Your task to perform on an android device: When is my next meeting? Image 0: 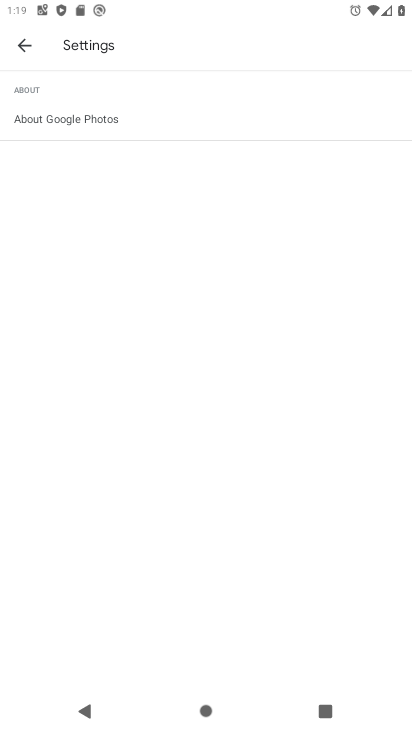
Step 0: press home button
Your task to perform on an android device: When is my next meeting? Image 1: 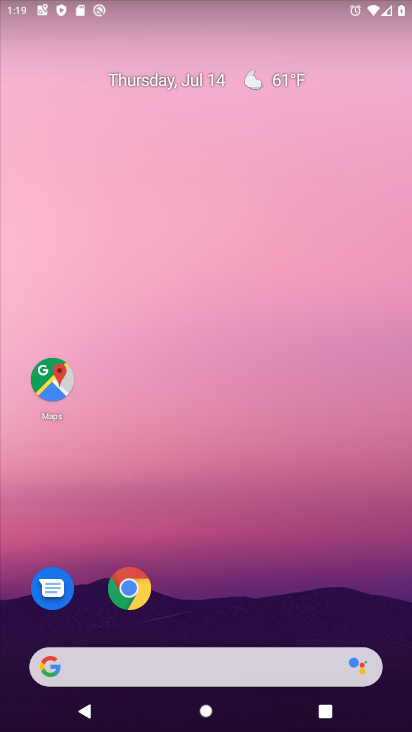
Step 1: drag from (236, 590) to (234, 297)
Your task to perform on an android device: When is my next meeting? Image 2: 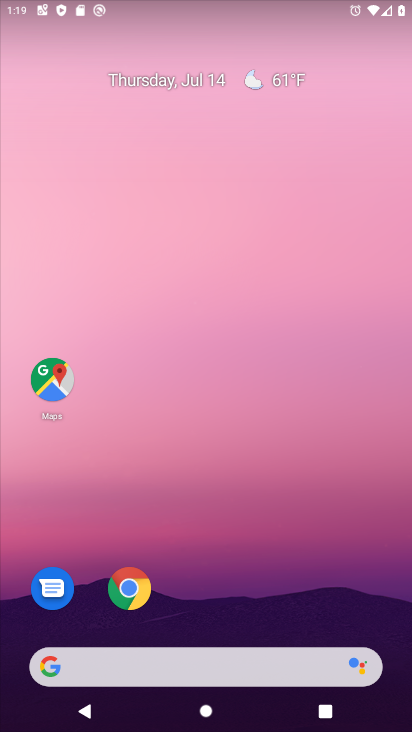
Step 2: drag from (234, 631) to (251, 351)
Your task to perform on an android device: When is my next meeting? Image 3: 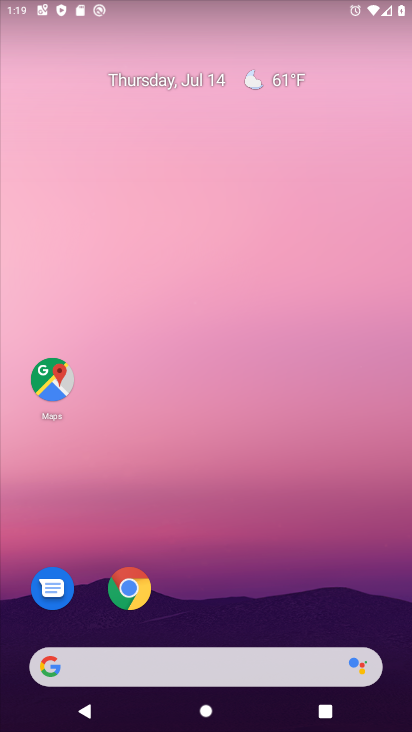
Step 3: drag from (230, 593) to (294, 234)
Your task to perform on an android device: When is my next meeting? Image 4: 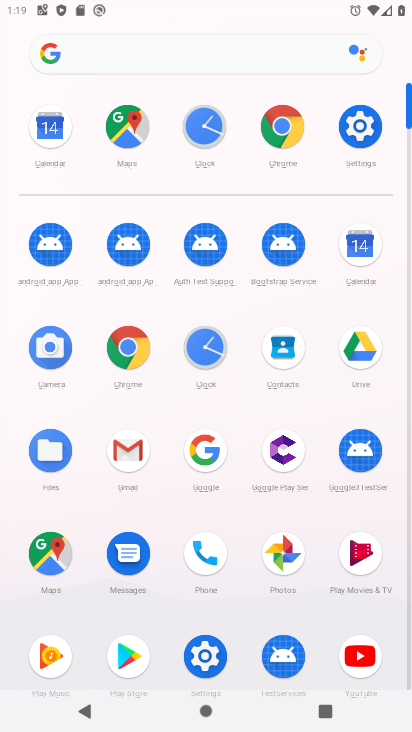
Step 4: click (373, 233)
Your task to perform on an android device: When is my next meeting? Image 5: 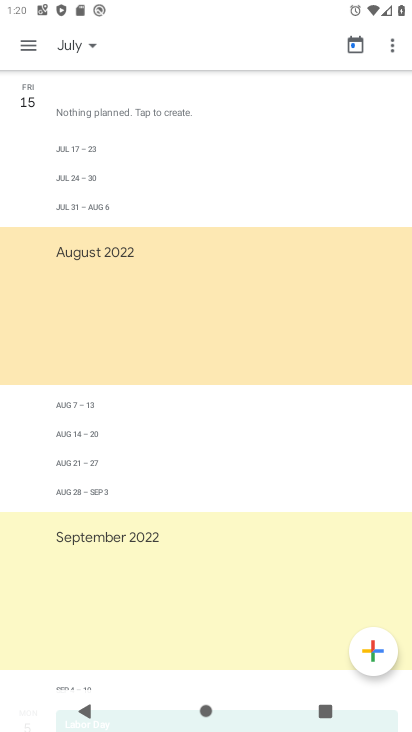
Step 5: task complete